Your task to perform on an android device: Search for the new Jordans on Nike.com Image 0: 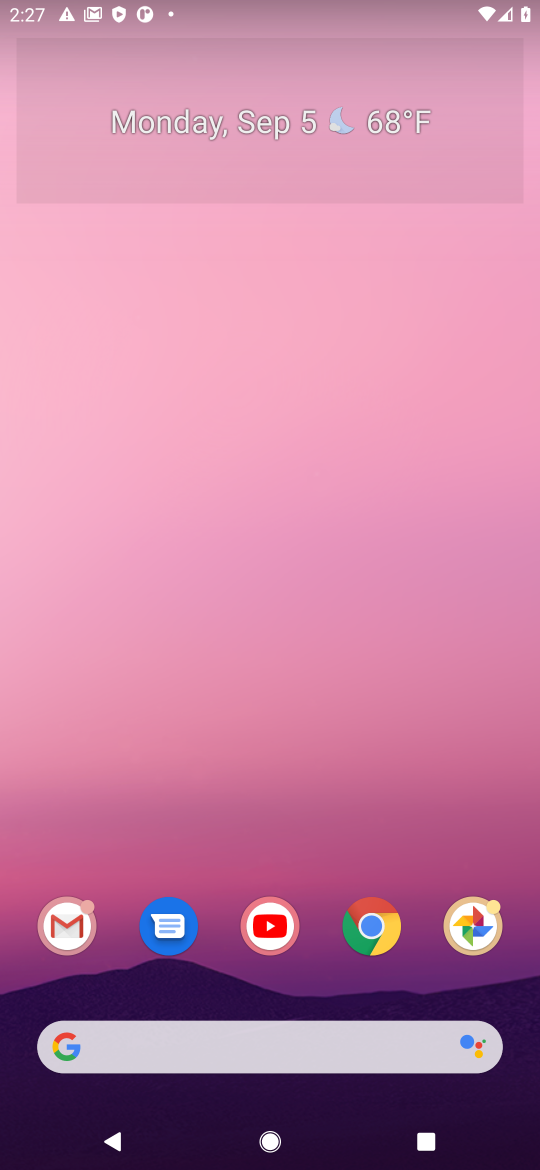
Step 0: click (378, 938)
Your task to perform on an android device: Search for the new Jordans on Nike.com Image 1: 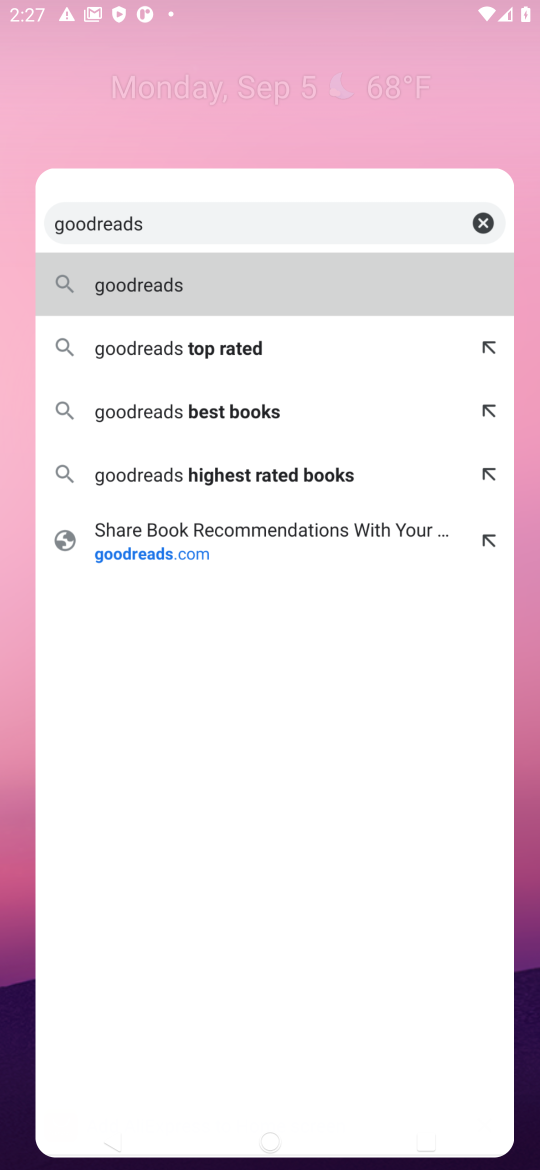
Step 1: task complete